Your task to perform on an android device: Open the phone app and click the voicemail tab. Image 0: 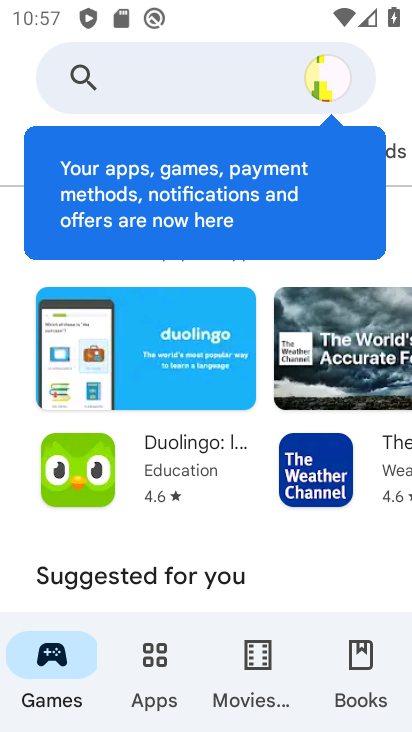
Step 0: press home button
Your task to perform on an android device: Open the phone app and click the voicemail tab. Image 1: 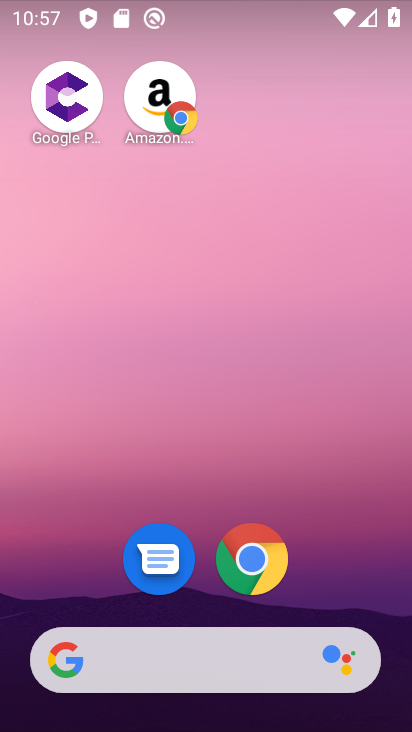
Step 1: drag from (324, 592) to (358, 151)
Your task to perform on an android device: Open the phone app and click the voicemail tab. Image 2: 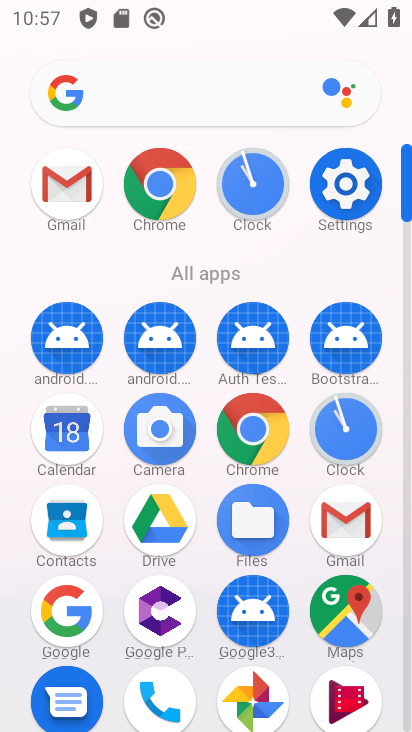
Step 2: drag from (148, 622) to (205, 266)
Your task to perform on an android device: Open the phone app and click the voicemail tab. Image 3: 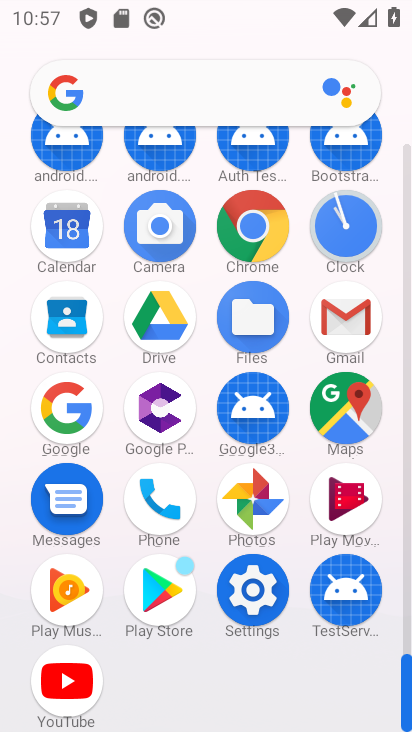
Step 3: click (158, 470)
Your task to perform on an android device: Open the phone app and click the voicemail tab. Image 4: 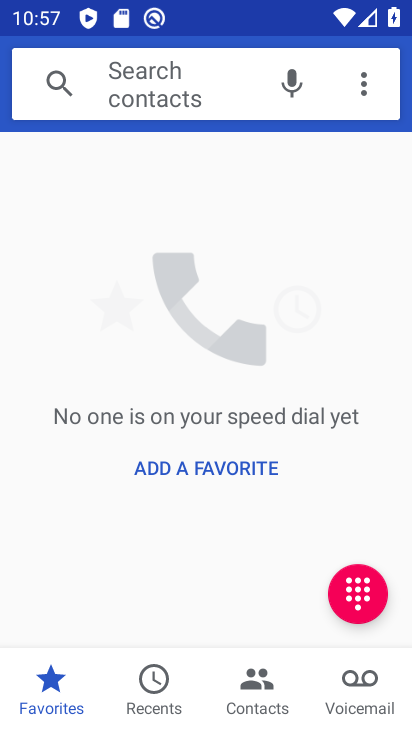
Step 4: click (349, 699)
Your task to perform on an android device: Open the phone app and click the voicemail tab. Image 5: 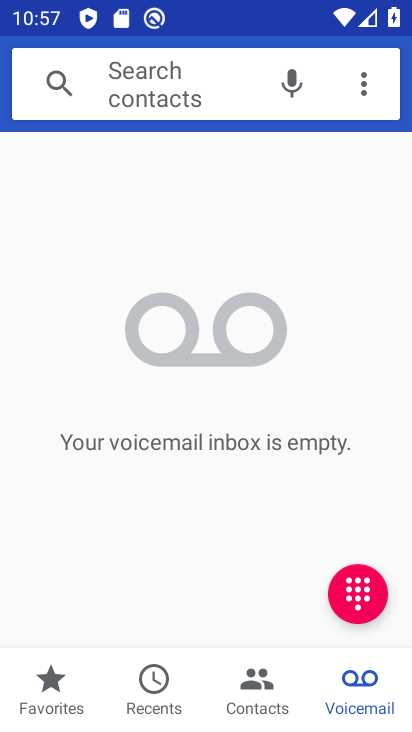
Step 5: task complete